Your task to perform on an android device: Go to Google Image 0: 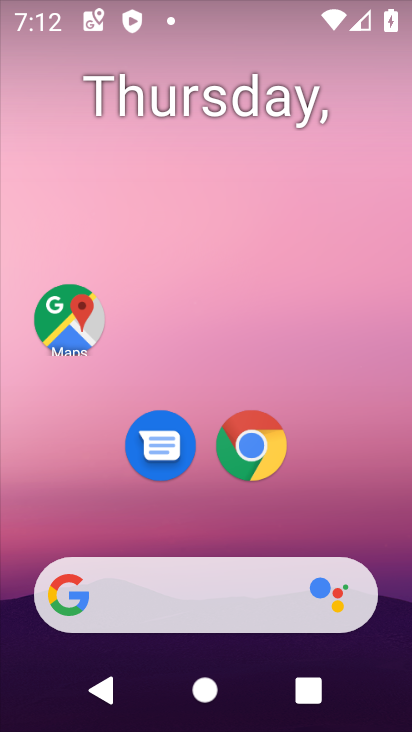
Step 0: click (72, 593)
Your task to perform on an android device: Go to Google Image 1: 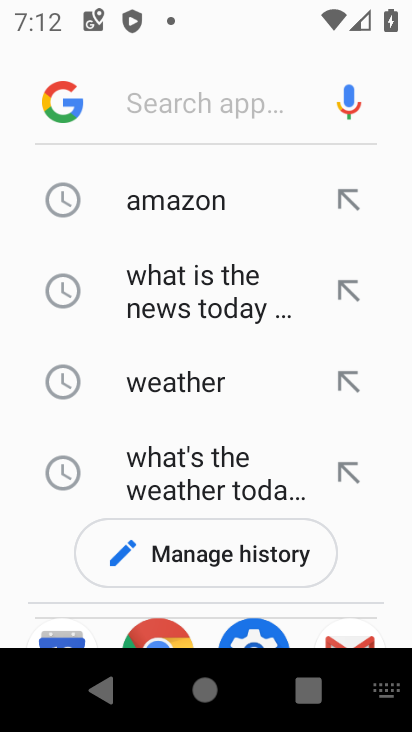
Step 1: click (55, 95)
Your task to perform on an android device: Go to Google Image 2: 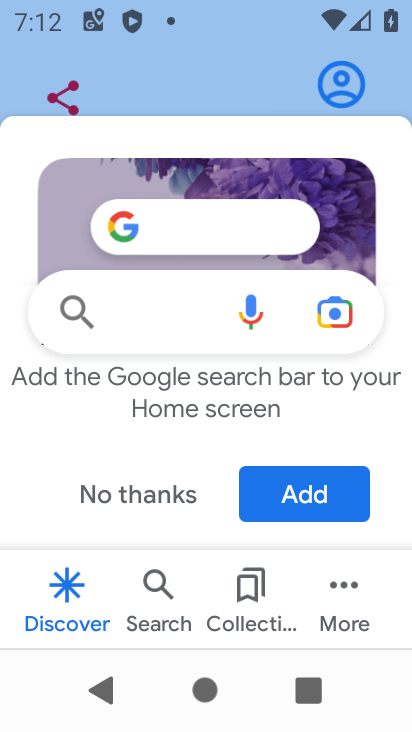
Step 2: task complete